Your task to perform on an android device: Open my contact list Image 0: 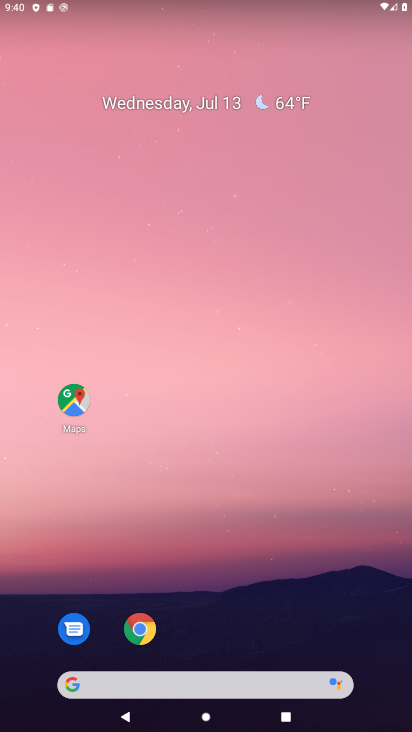
Step 0: drag from (299, 662) to (297, 218)
Your task to perform on an android device: Open my contact list Image 1: 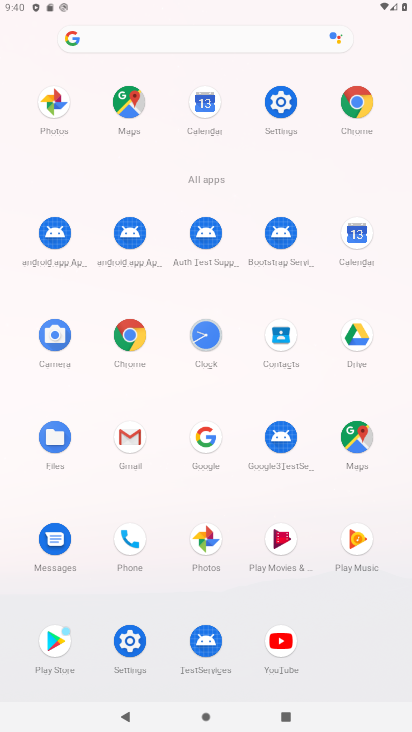
Step 1: click (137, 532)
Your task to perform on an android device: Open my contact list Image 2: 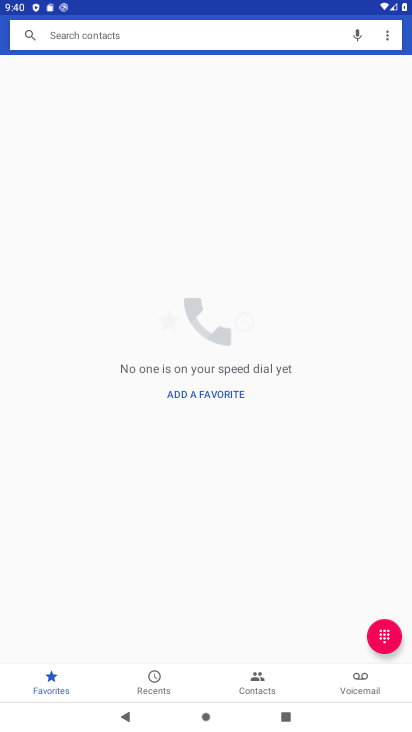
Step 2: click (270, 686)
Your task to perform on an android device: Open my contact list Image 3: 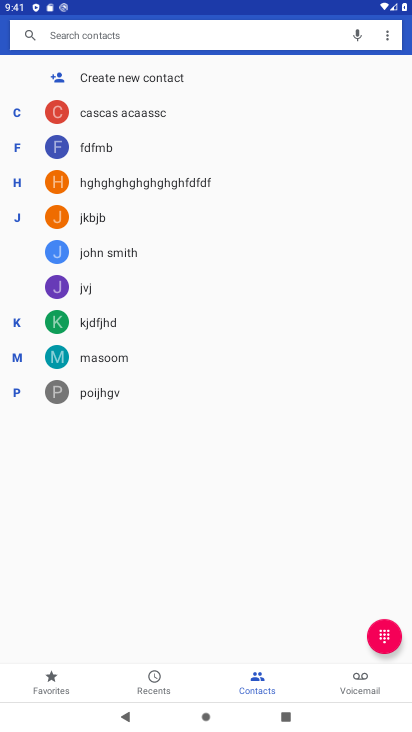
Step 3: task complete